Your task to perform on an android device: Go to location settings Image 0: 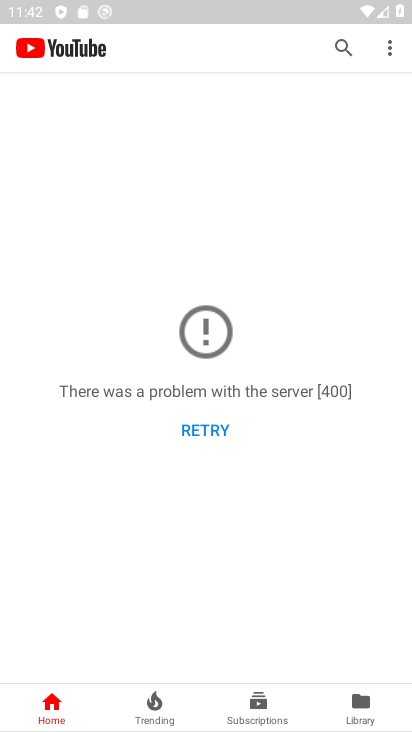
Step 0: press back button
Your task to perform on an android device: Go to location settings Image 1: 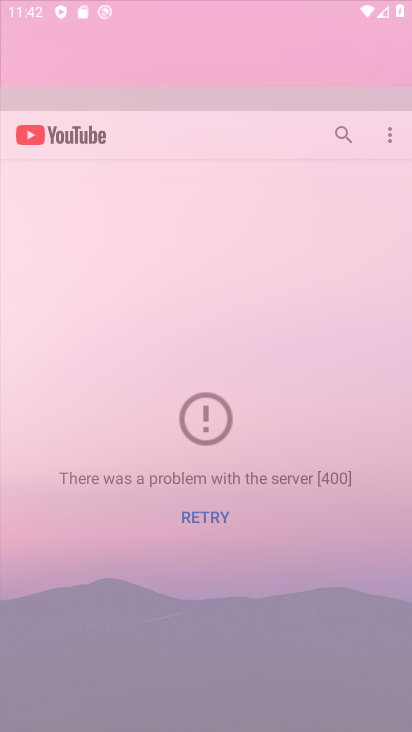
Step 1: press home button
Your task to perform on an android device: Go to location settings Image 2: 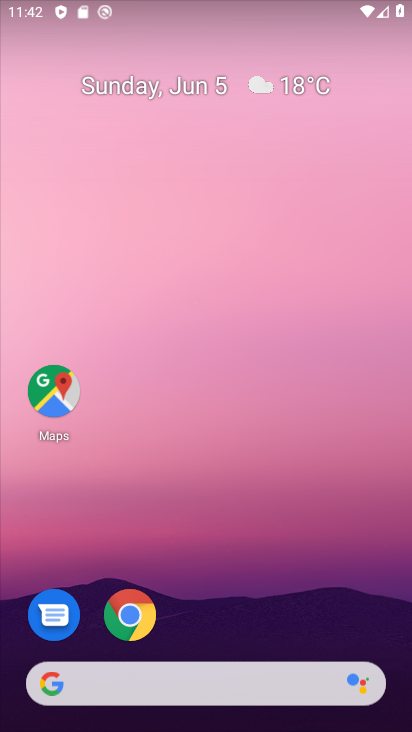
Step 2: drag from (256, 474) to (230, 218)
Your task to perform on an android device: Go to location settings Image 3: 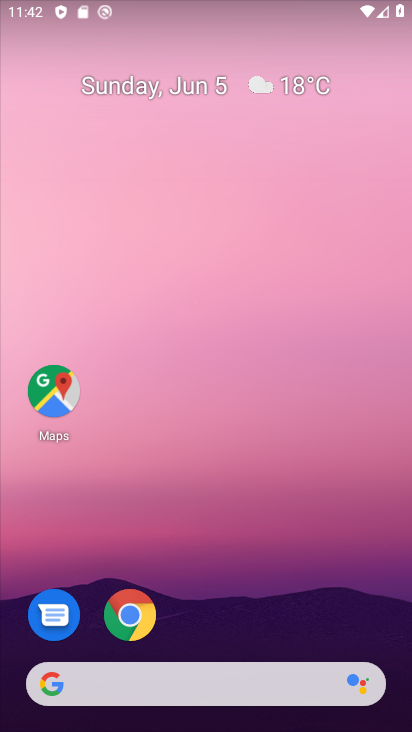
Step 3: drag from (264, 545) to (229, 222)
Your task to perform on an android device: Go to location settings Image 4: 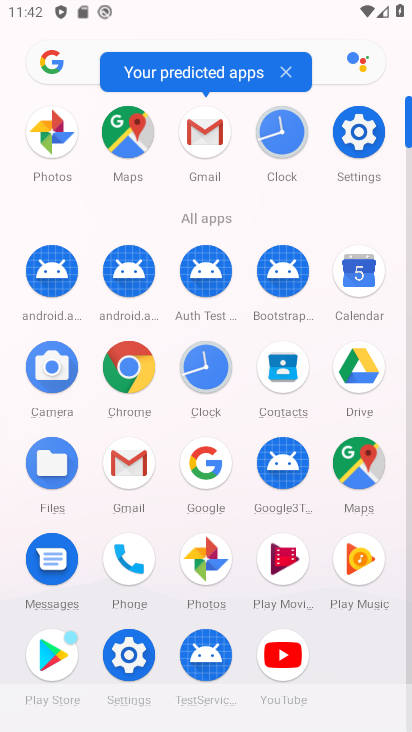
Step 4: drag from (355, 128) to (39, 155)
Your task to perform on an android device: Go to location settings Image 5: 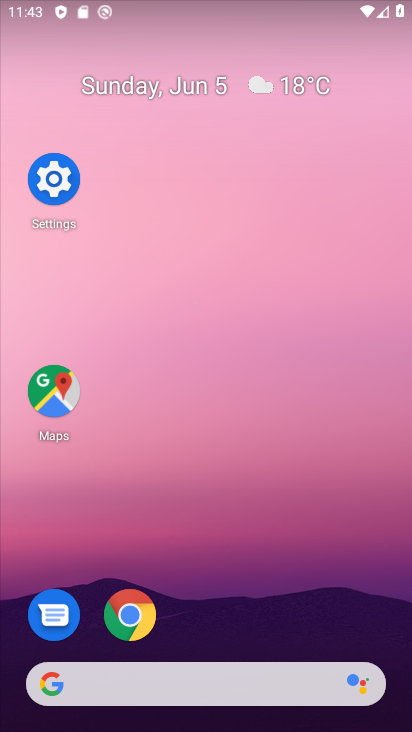
Step 5: click (67, 164)
Your task to perform on an android device: Go to location settings Image 6: 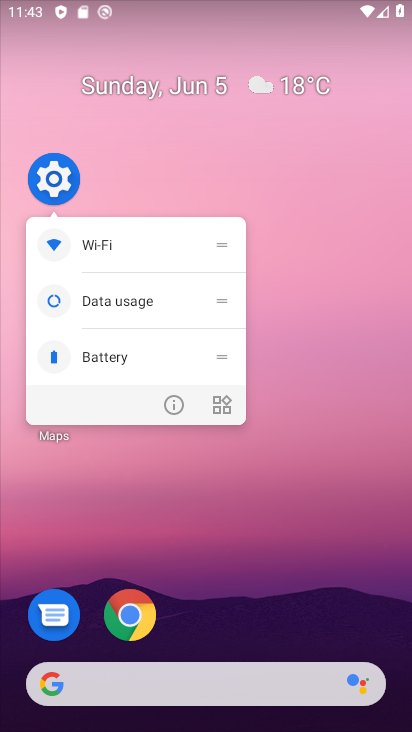
Step 6: click (52, 178)
Your task to perform on an android device: Go to location settings Image 7: 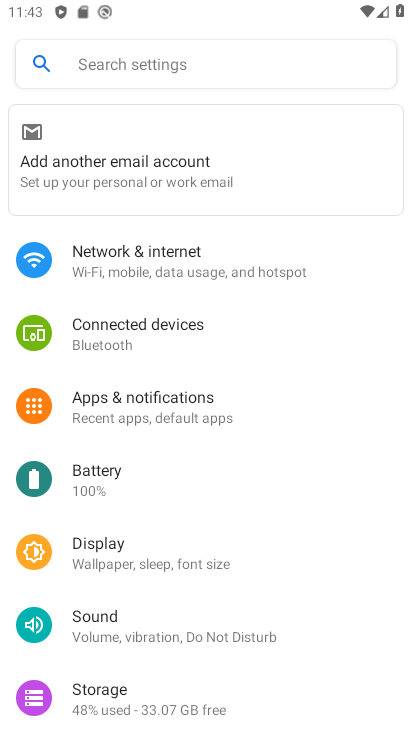
Step 7: drag from (204, 571) to (202, 217)
Your task to perform on an android device: Go to location settings Image 8: 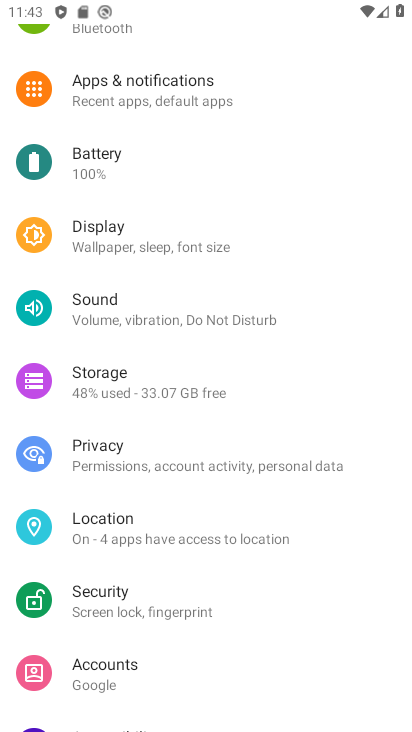
Step 8: click (210, 532)
Your task to perform on an android device: Go to location settings Image 9: 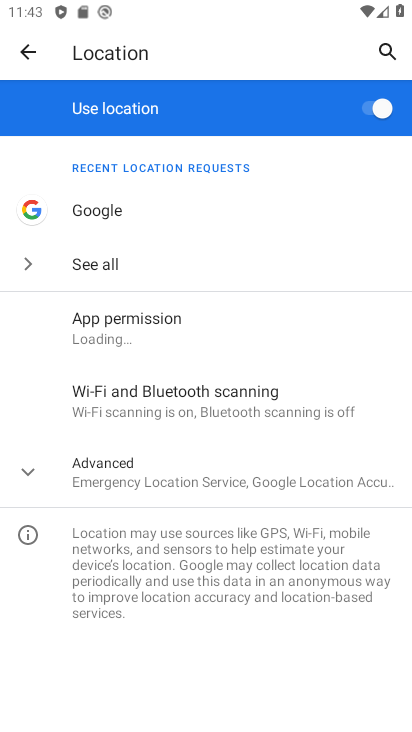
Step 9: task complete